Your task to perform on an android device: check android version Image 0: 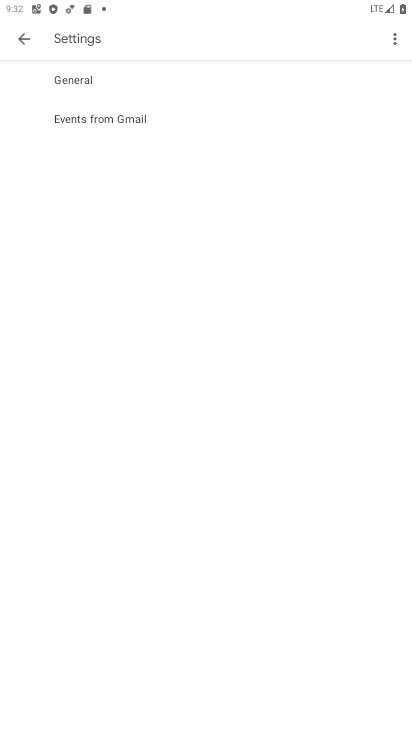
Step 0: press home button
Your task to perform on an android device: check android version Image 1: 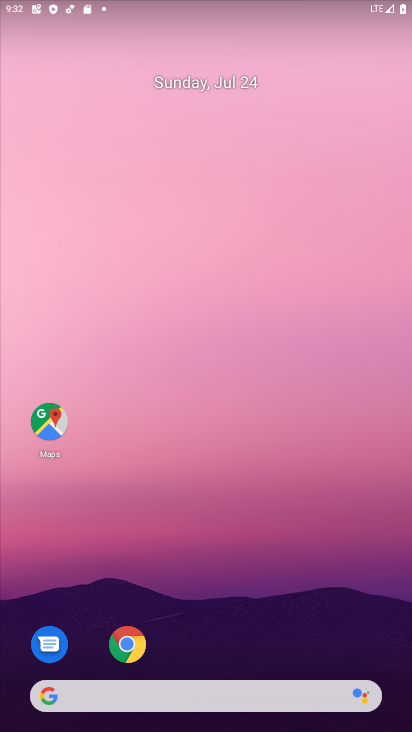
Step 1: drag from (305, 683) to (266, 255)
Your task to perform on an android device: check android version Image 2: 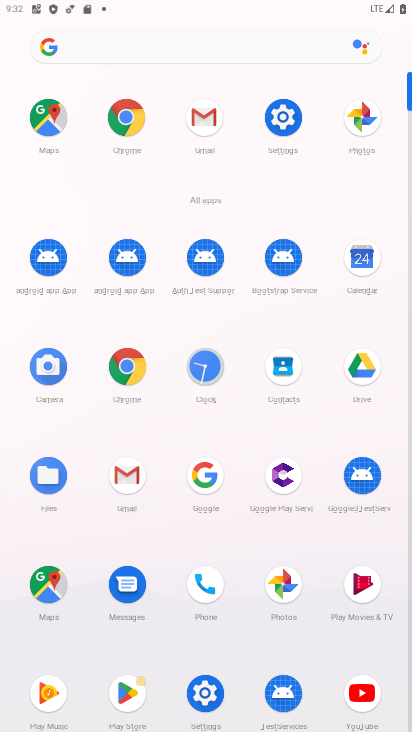
Step 2: click (283, 112)
Your task to perform on an android device: check android version Image 3: 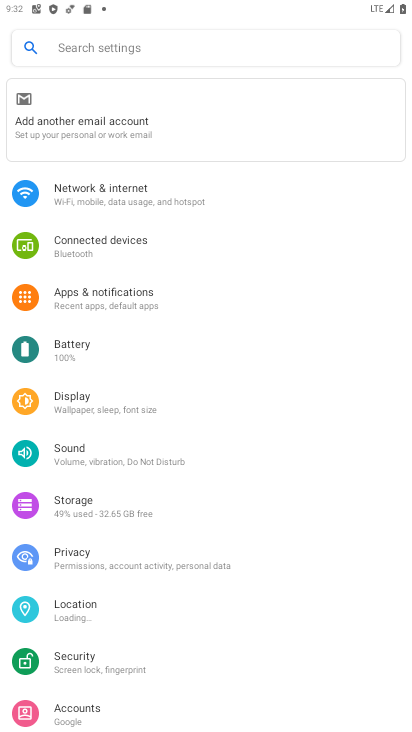
Step 3: drag from (136, 698) to (149, 281)
Your task to perform on an android device: check android version Image 4: 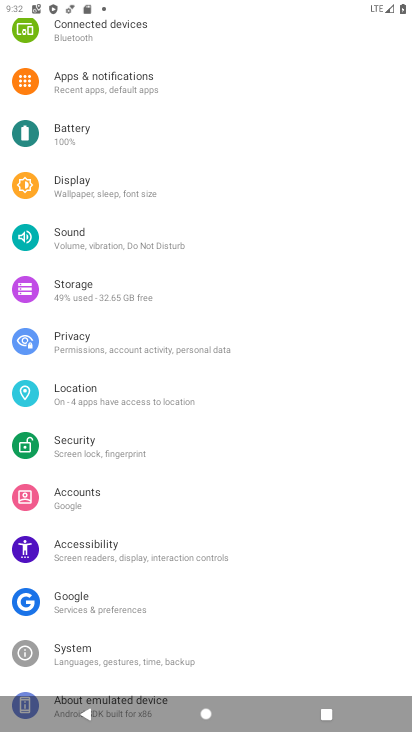
Step 4: drag from (59, 680) to (95, 329)
Your task to perform on an android device: check android version Image 5: 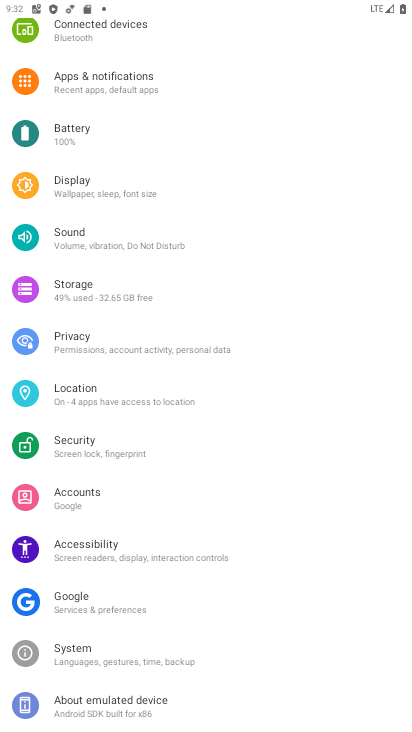
Step 5: click (91, 694)
Your task to perform on an android device: check android version Image 6: 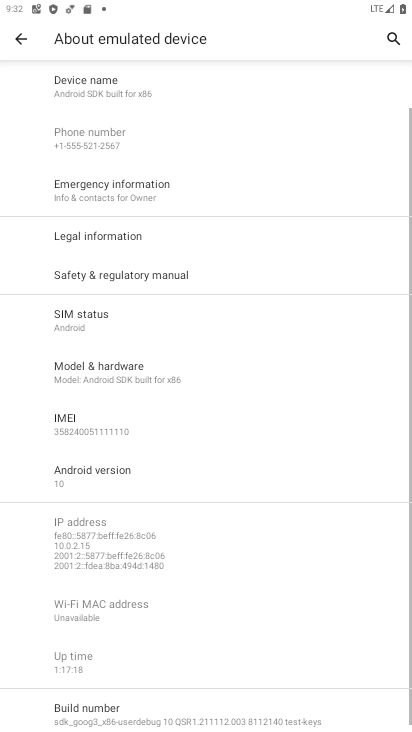
Step 6: click (83, 467)
Your task to perform on an android device: check android version Image 7: 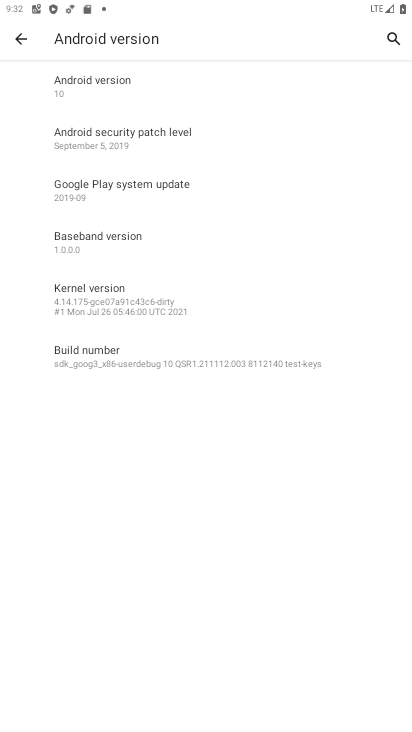
Step 7: click (204, 371)
Your task to perform on an android device: check android version Image 8: 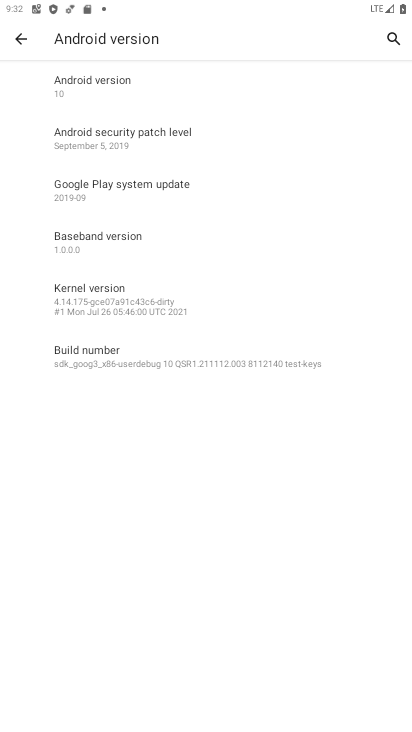
Step 8: task complete